Your task to perform on an android device: open chrome and create a bookmark for the current page Image 0: 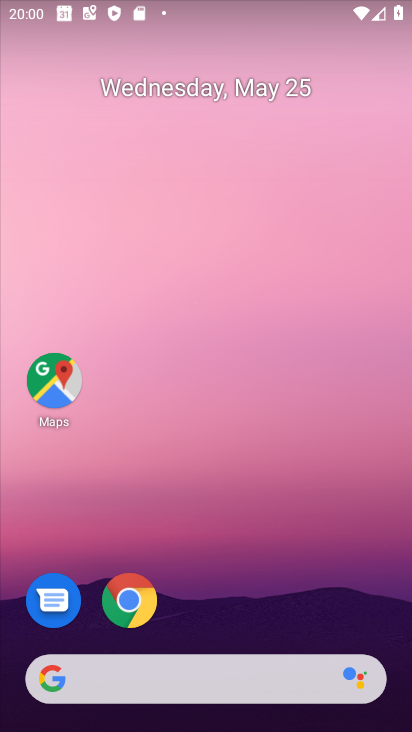
Step 0: drag from (334, 609) to (296, 189)
Your task to perform on an android device: open chrome and create a bookmark for the current page Image 1: 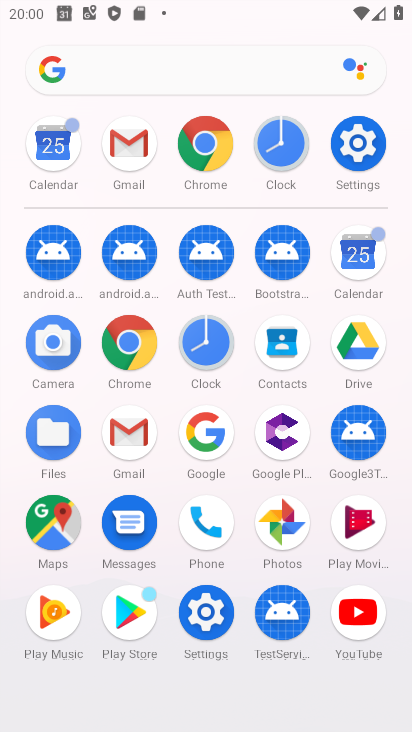
Step 1: click (127, 350)
Your task to perform on an android device: open chrome and create a bookmark for the current page Image 2: 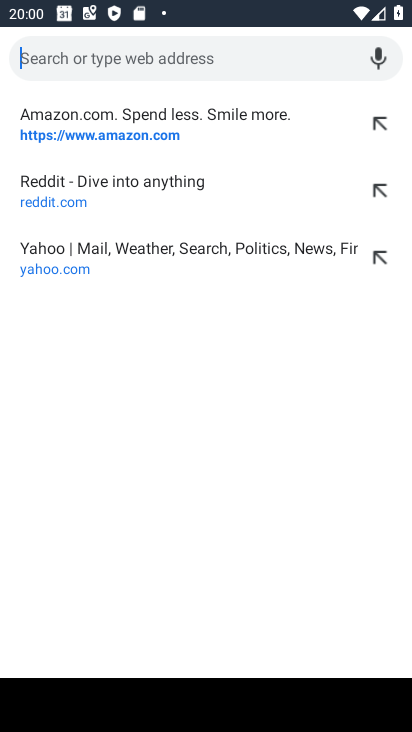
Step 2: task complete